Your task to perform on an android device: When is my next meeting? Image 0: 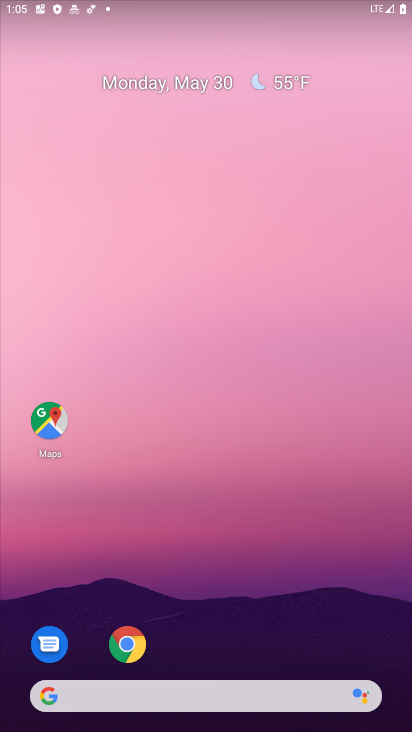
Step 0: drag from (277, 629) to (0, 217)
Your task to perform on an android device: When is my next meeting? Image 1: 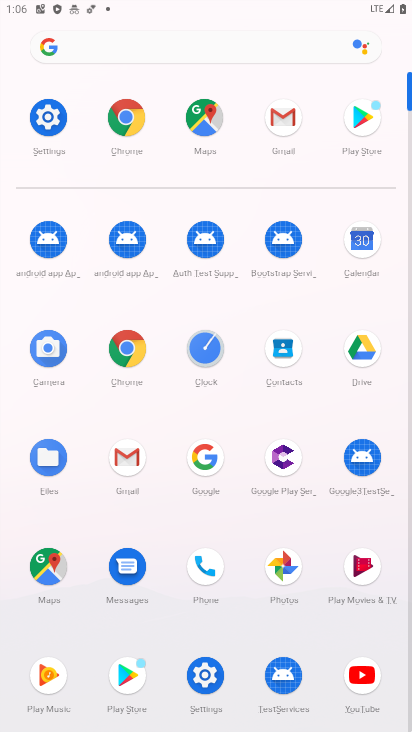
Step 1: click (46, 205)
Your task to perform on an android device: When is my next meeting? Image 2: 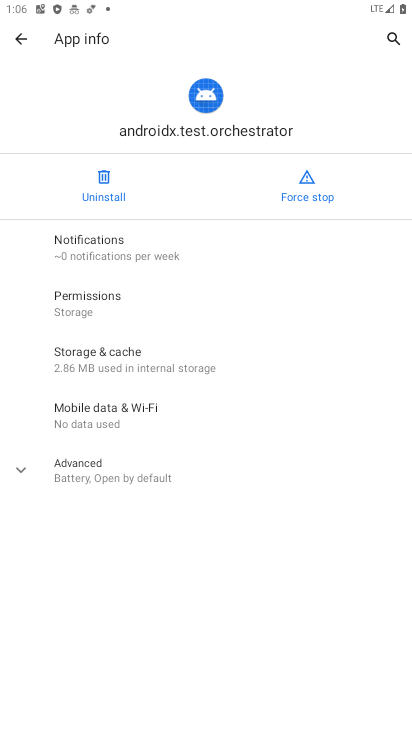
Step 2: task complete